Your task to perform on an android device: open app "Indeed Job Search" (install if not already installed) Image 0: 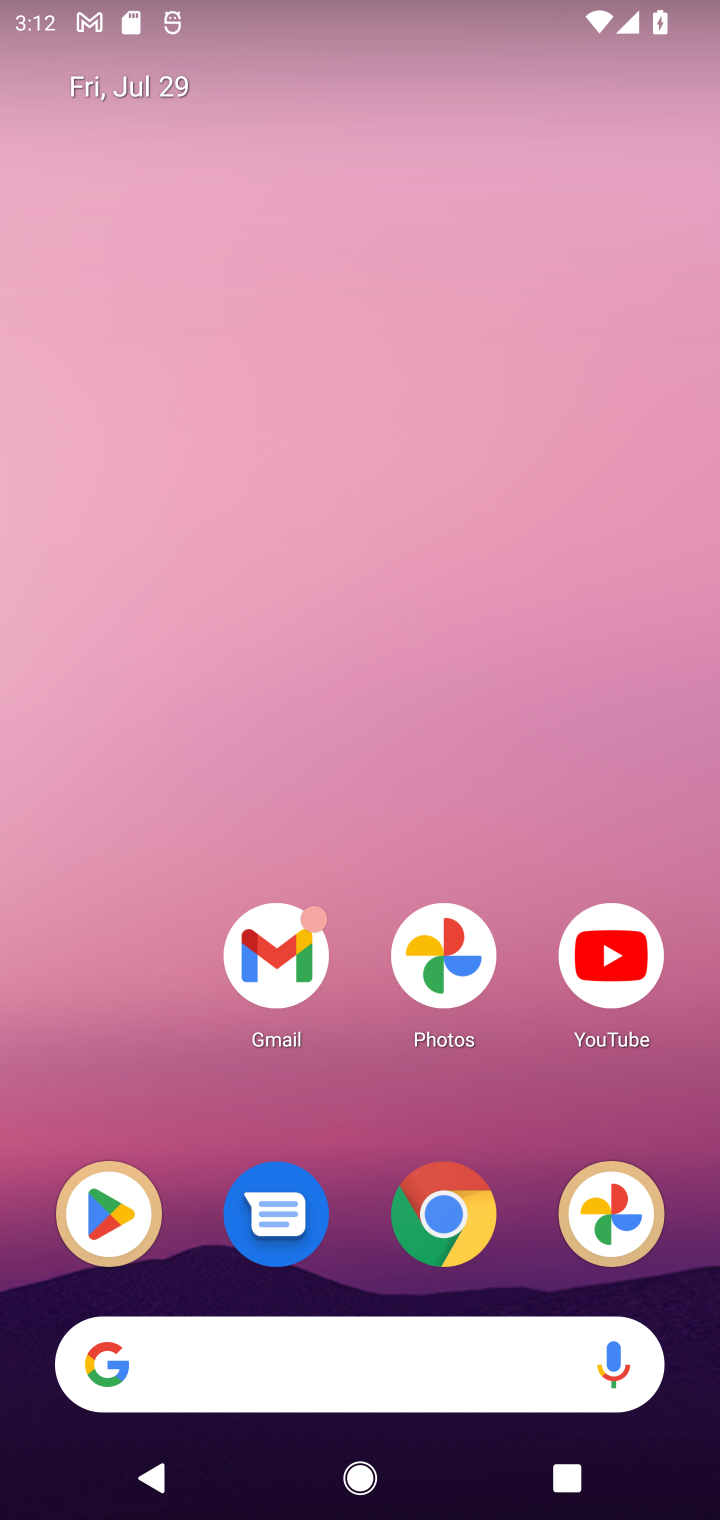
Step 0: click (119, 1203)
Your task to perform on an android device: open app "Indeed Job Search" (install if not already installed) Image 1: 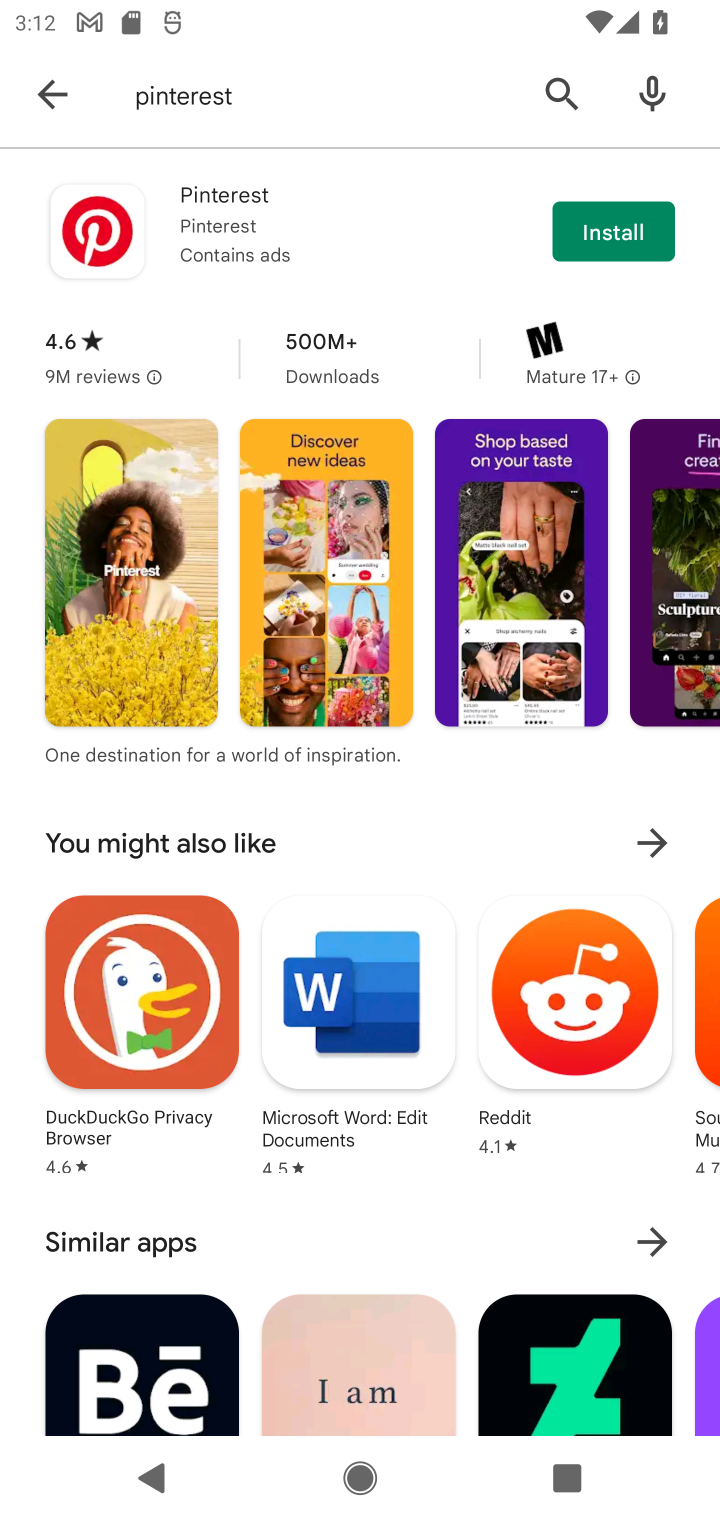
Step 1: click (562, 102)
Your task to perform on an android device: open app "Indeed Job Search" (install if not already installed) Image 2: 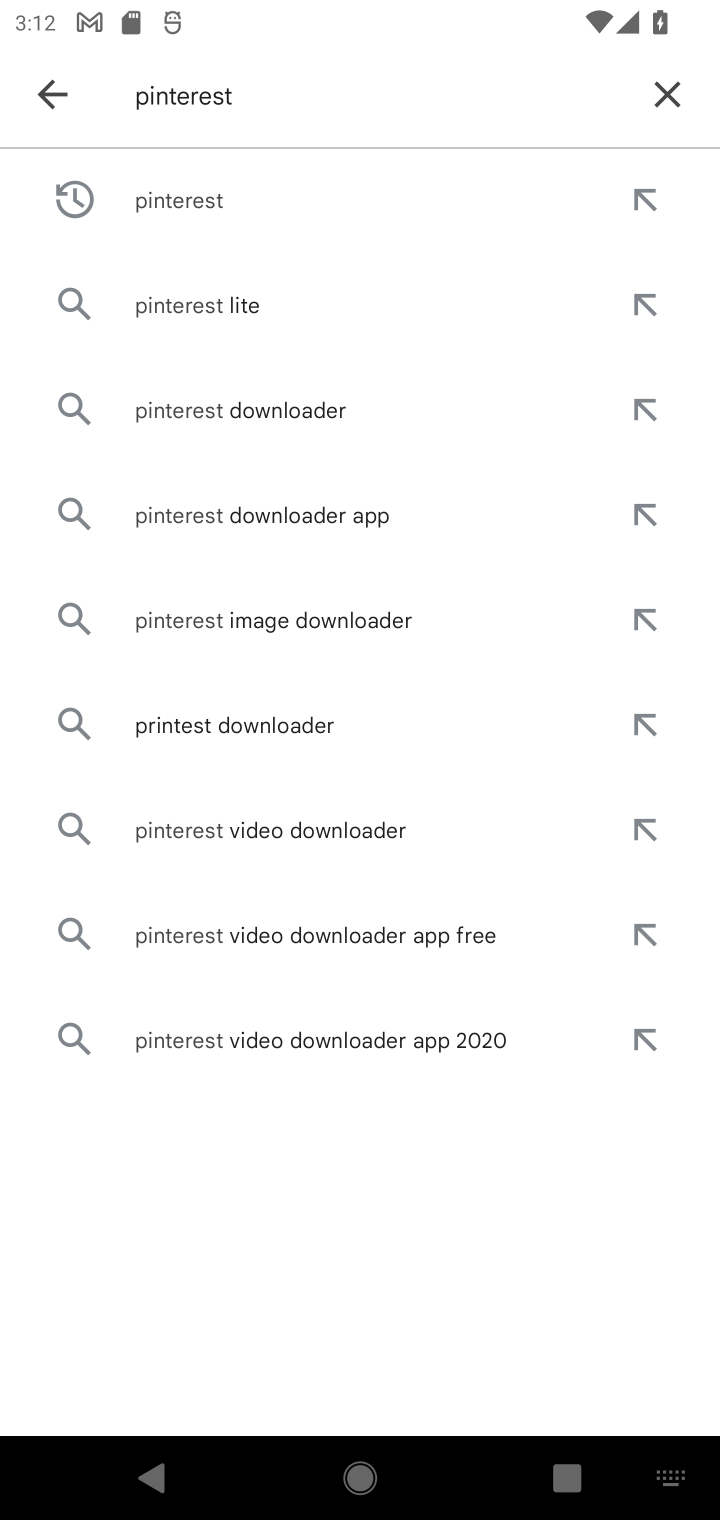
Step 2: click (682, 86)
Your task to perform on an android device: open app "Indeed Job Search" (install if not already installed) Image 3: 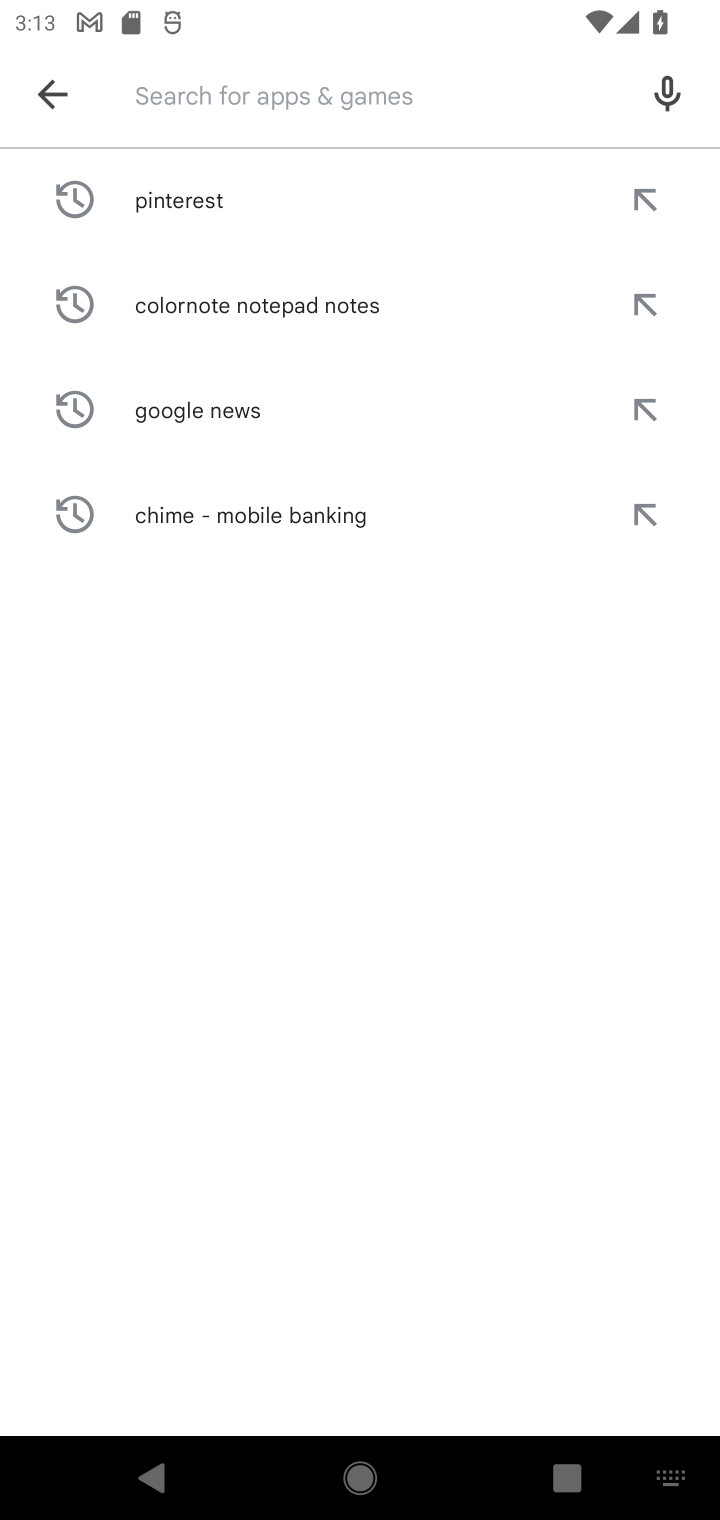
Step 3: type "Indeed Job Search"
Your task to perform on an android device: open app "Indeed Job Search" (install if not already installed) Image 4: 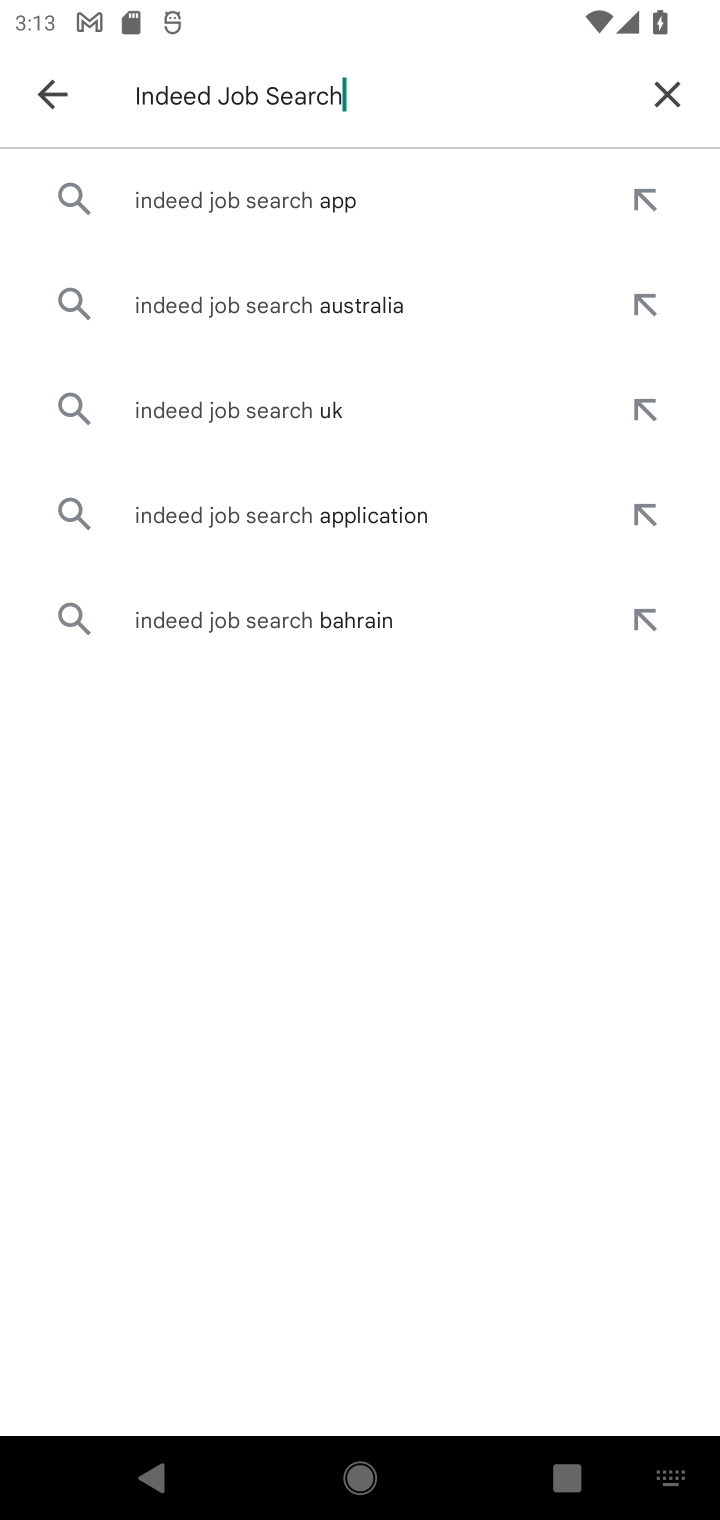
Step 4: press enter
Your task to perform on an android device: open app "Indeed Job Search" (install if not already installed) Image 5: 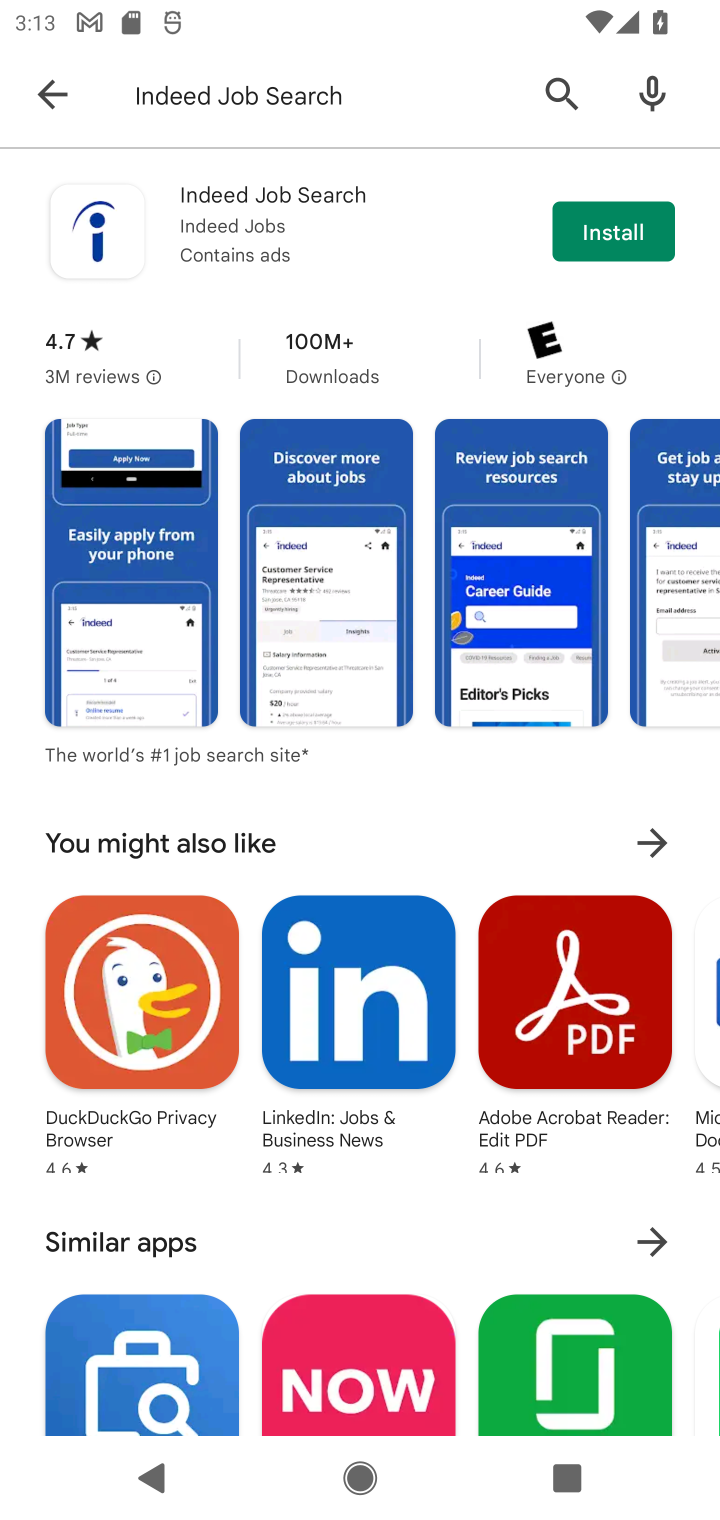
Step 5: click (647, 236)
Your task to perform on an android device: open app "Indeed Job Search" (install if not already installed) Image 6: 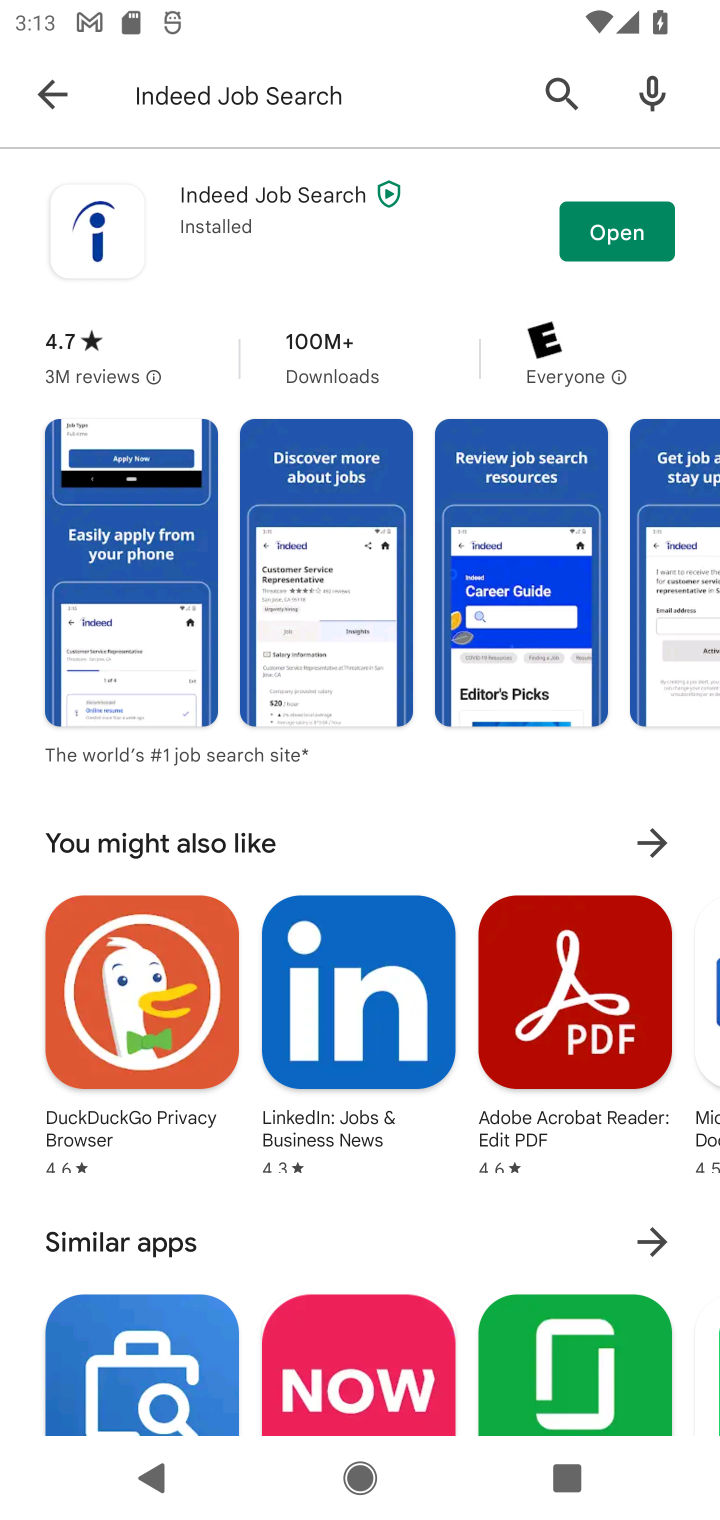
Step 6: click (637, 246)
Your task to perform on an android device: open app "Indeed Job Search" (install if not already installed) Image 7: 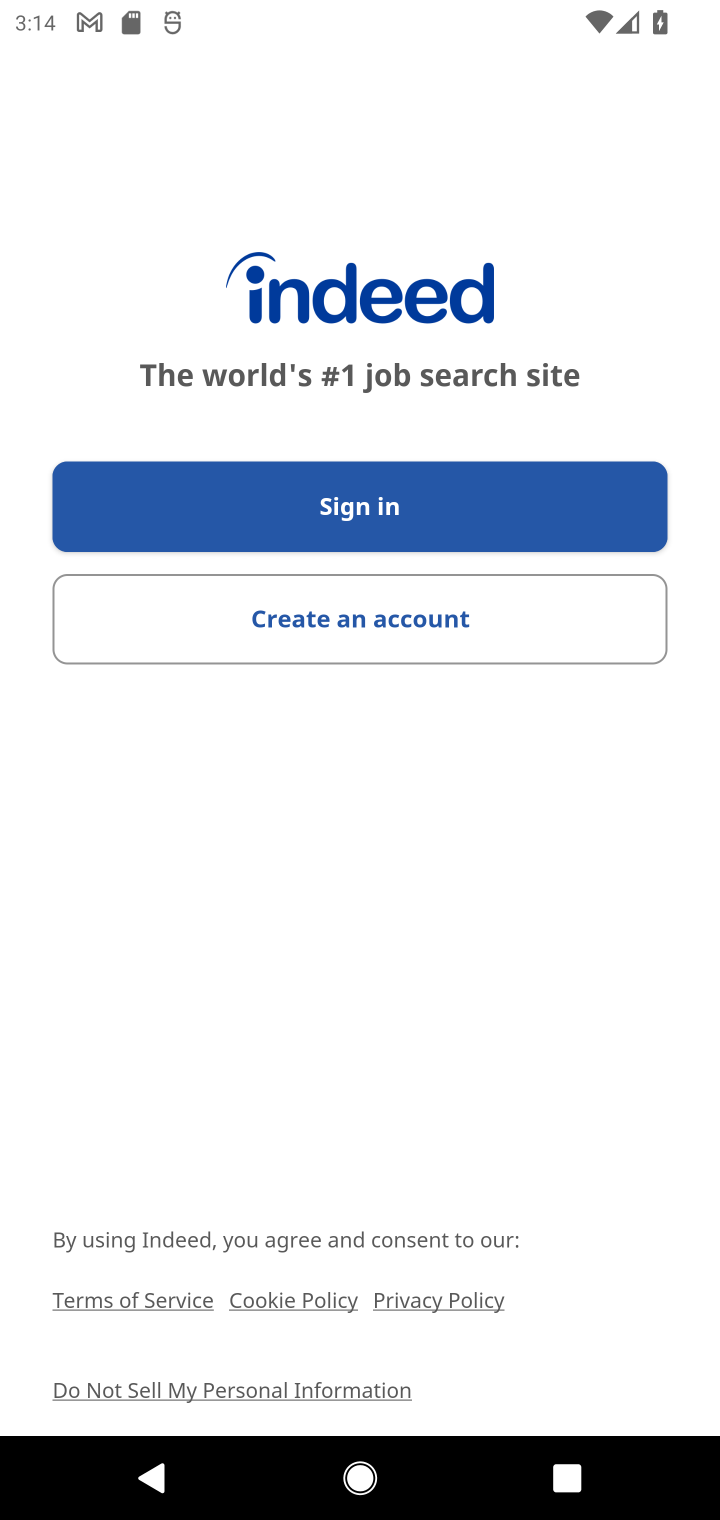
Step 7: task complete